Your task to perform on an android device: turn on location history Image 0: 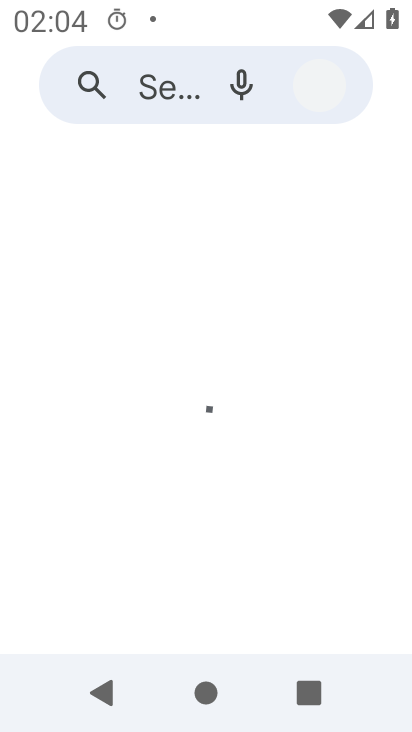
Step 0: press home button
Your task to perform on an android device: turn on location history Image 1: 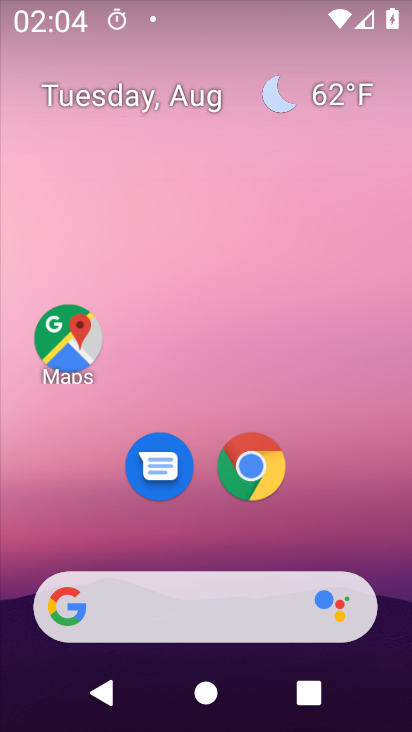
Step 1: drag from (326, 520) to (351, 134)
Your task to perform on an android device: turn on location history Image 2: 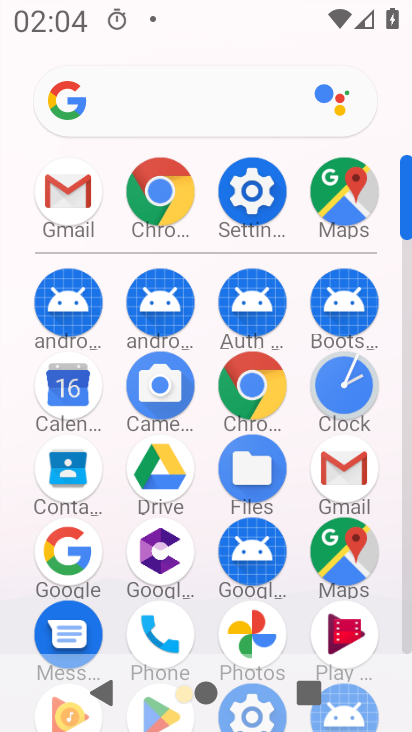
Step 2: click (253, 187)
Your task to perform on an android device: turn on location history Image 3: 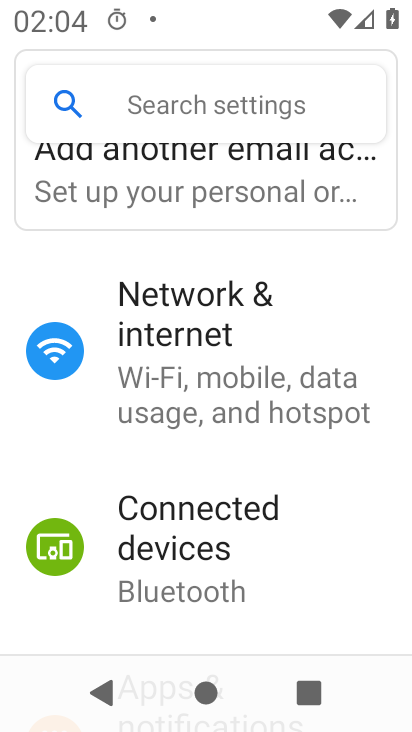
Step 3: drag from (345, 541) to (357, 417)
Your task to perform on an android device: turn on location history Image 4: 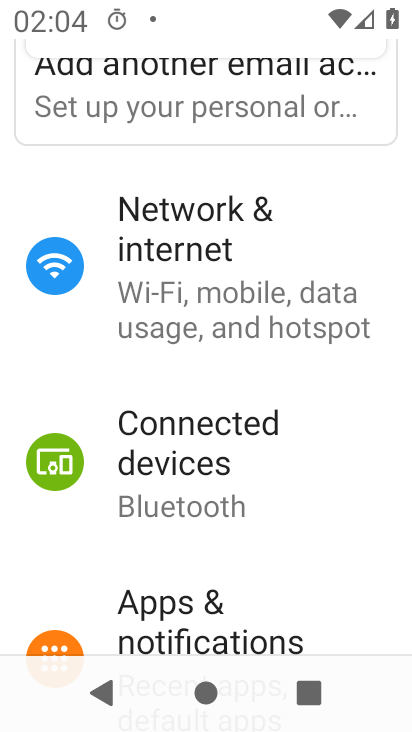
Step 4: drag from (364, 560) to (370, 430)
Your task to perform on an android device: turn on location history Image 5: 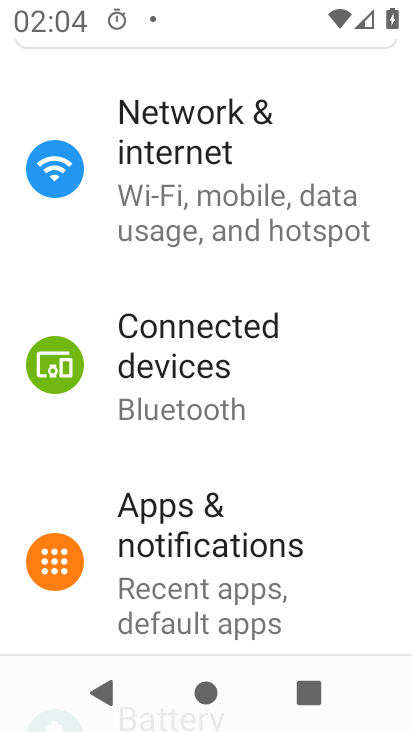
Step 5: drag from (356, 549) to (365, 444)
Your task to perform on an android device: turn on location history Image 6: 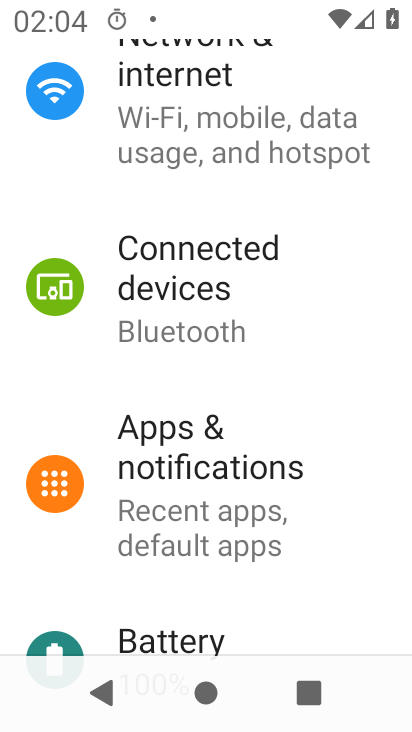
Step 6: drag from (349, 588) to (354, 467)
Your task to perform on an android device: turn on location history Image 7: 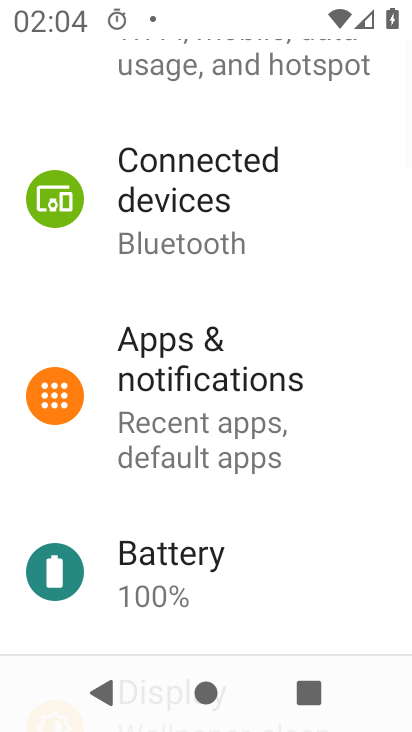
Step 7: drag from (358, 560) to (363, 454)
Your task to perform on an android device: turn on location history Image 8: 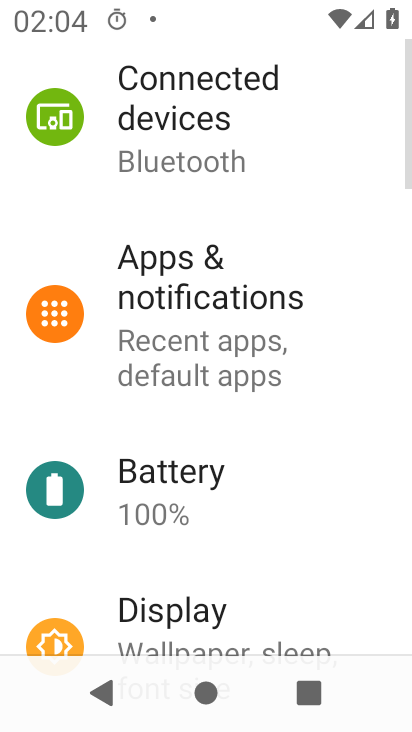
Step 8: drag from (346, 540) to (353, 421)
Your task to perform on an android device: turn on location history Image 9: 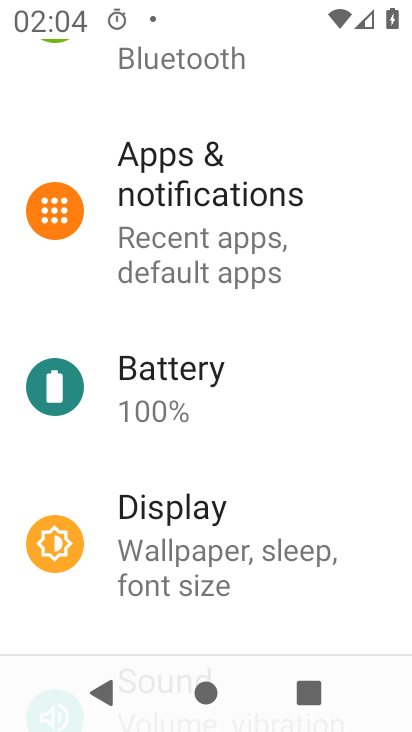
Step 9: drag from (353, 589) to (360, 457)
Your task to perform on an android device: turn on location history Image 10: 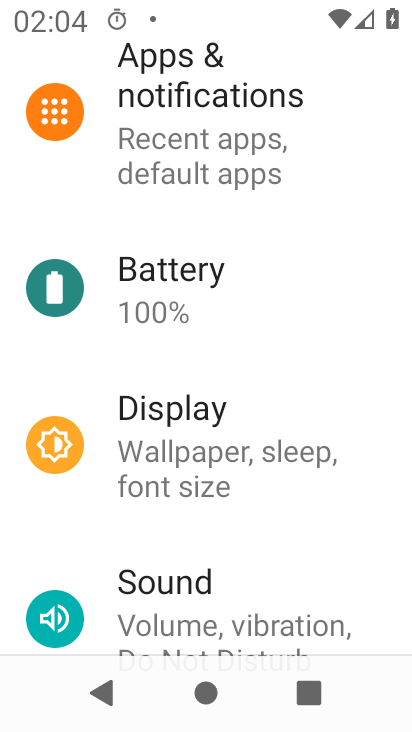
Step 10: drag from (335, 560) to (353, 424)
Your task to perform on an android device: turn on location history Image 11: 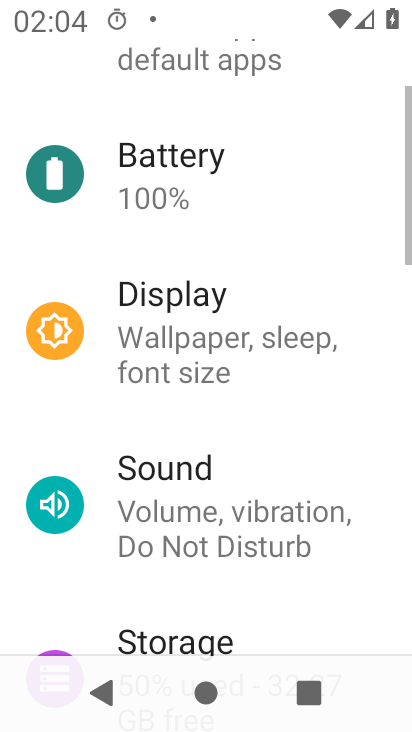
Step 11: drag from (348, 587) to (361, 457)
Your task to perform on an android device: turn on location history Image 12: 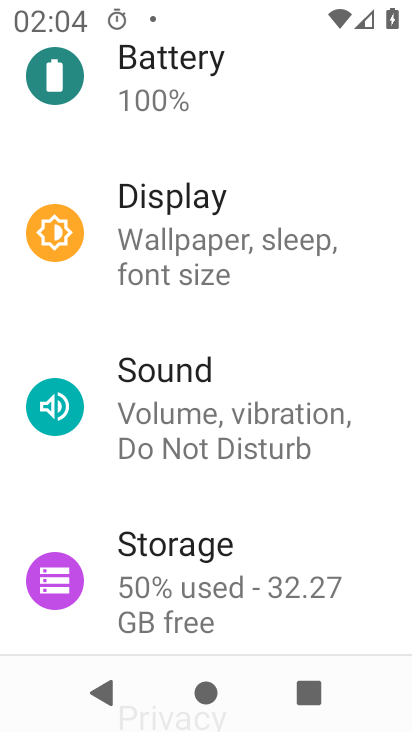
Step 12: drag from (345, 625) to (359, 499)
Your task to perform on an android device: turn on location history Image 13: 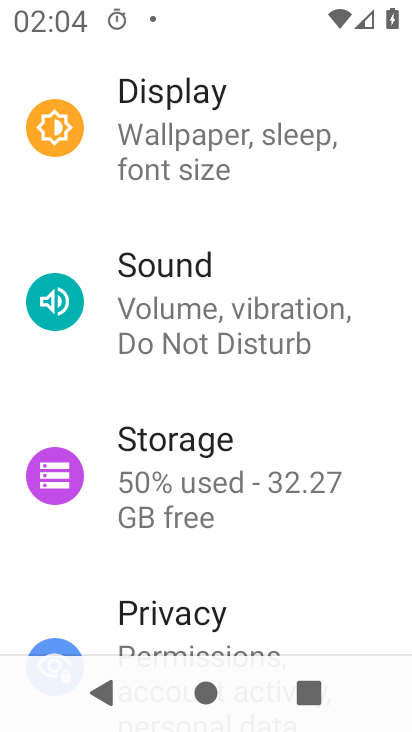
Step 13: drag from (354, 570) to (351, 440)
Your task to perform on an android device: turn on location history Image 14: 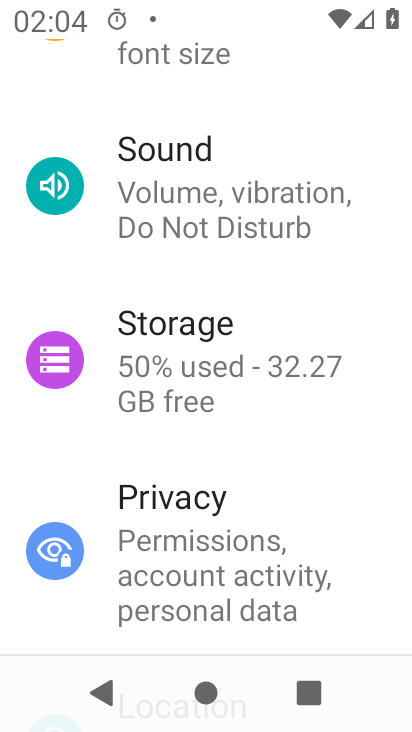
Step 14: drag from (350, 579) to (341, 415)
Your task to perform on an android device: turn on location history Image 15: 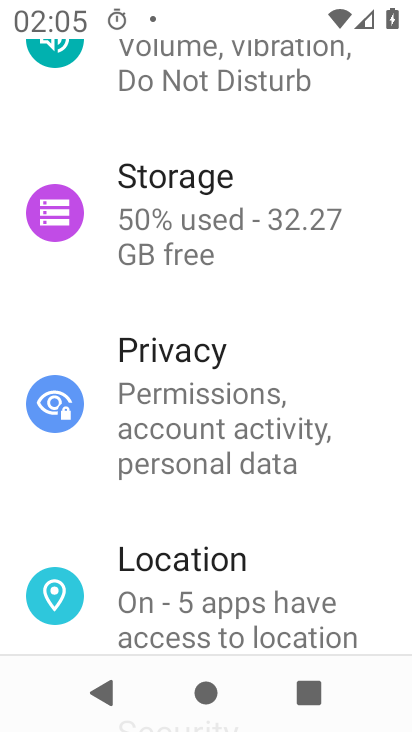
Step 15: drag from (335, 544) to (346, 417)
Your task to perform on an android device: turn on location history Image 16: 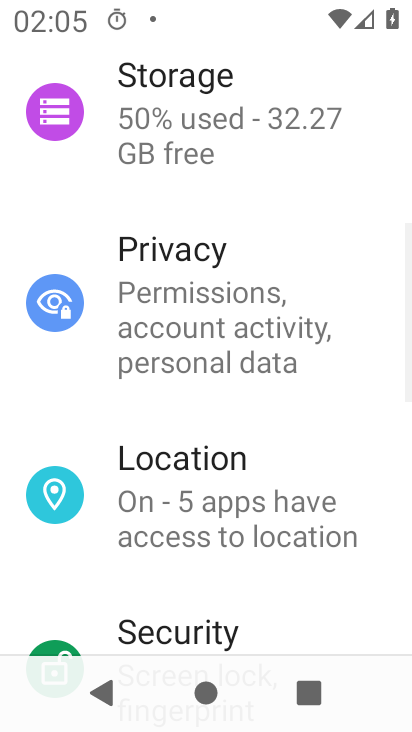
Step 16: click (321, 496)
Your task to perform on an android device: turn on location history Image 17: 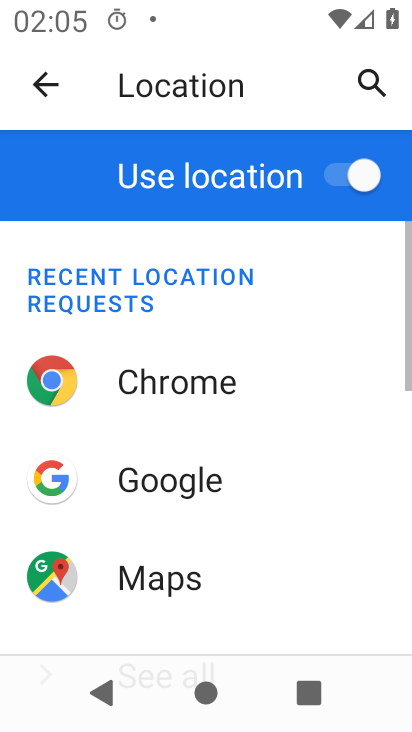
Step 17: drag from (314, 553) to (316, 320)
Your task to perform on an android device: turn on location history Image 18: 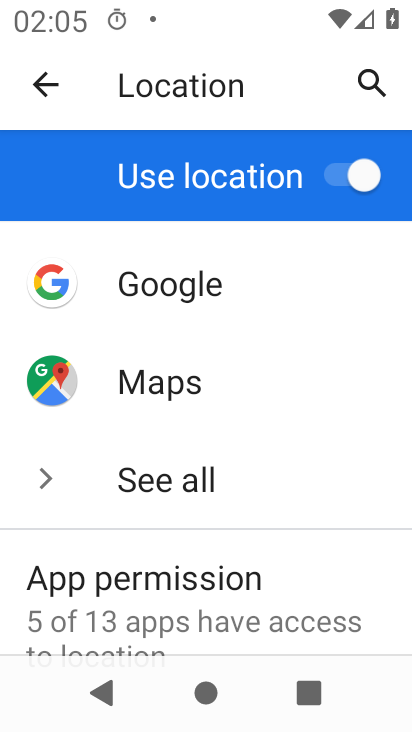
Step 18: drag from (305, 513) to (299, 309)
Your task to perform on an android device: turn on location history Image 19: 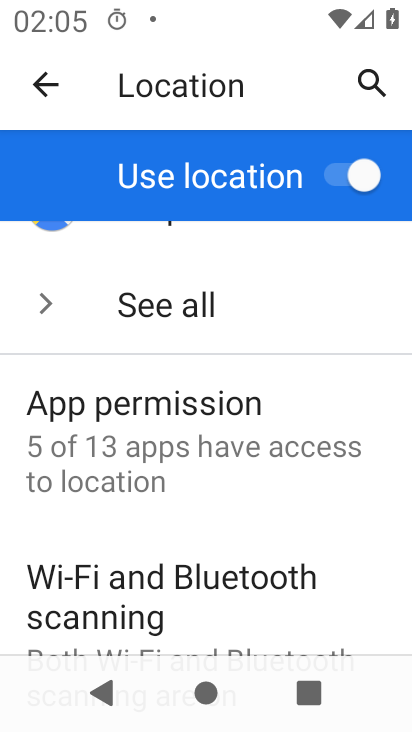
Step 19: drag from (276, 556) to (301, 381)
Your task to perform on an android device: turn on location history Image 20: 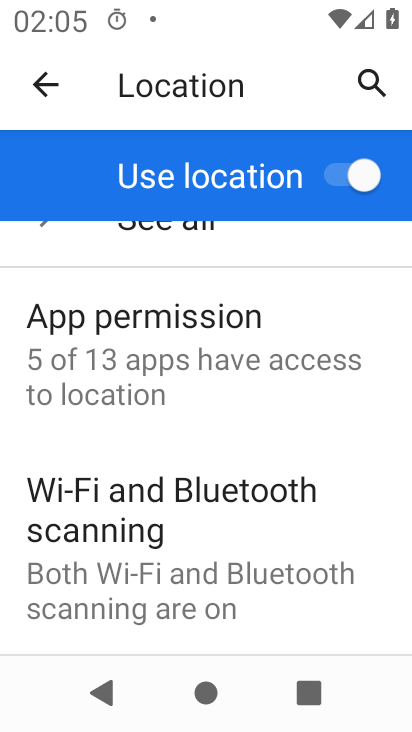
Step 20: drag from (309, 585) to (309, 384)
Your task to perform on an android device: turn on location history Image 21: 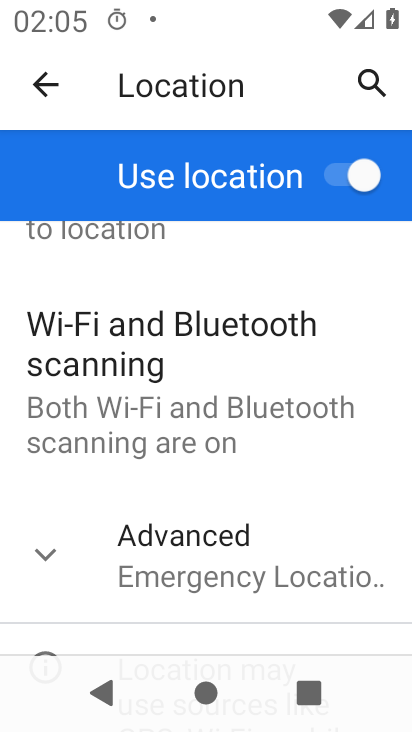
Step 21: click (252, 578)
Your task to perform on an android device: turn on location history Image 22: 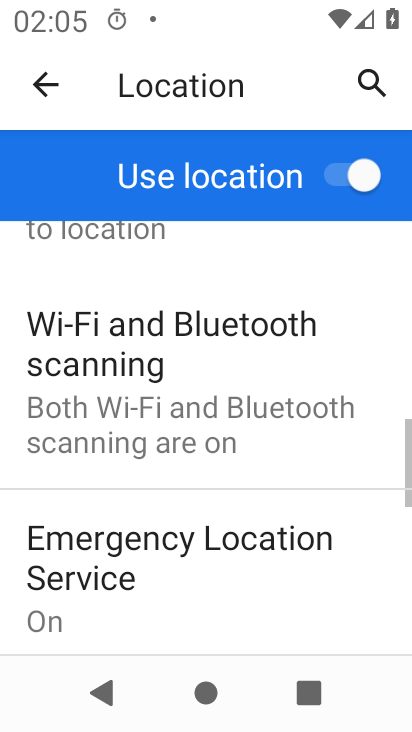
Step 22: task complete